Your task to perform on an android device: What's on my calendar today? Image 0: 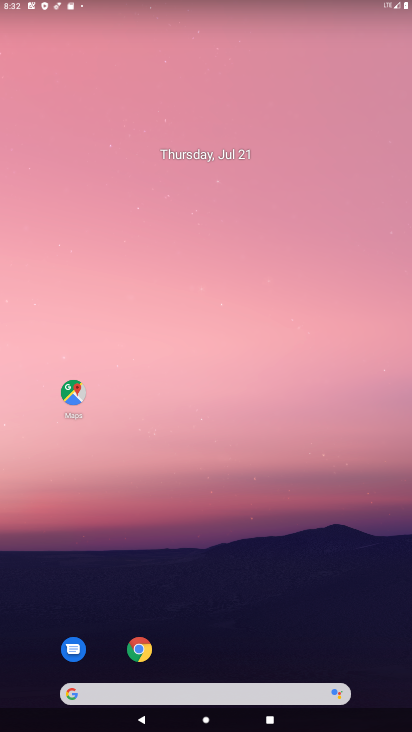
Step 0: drag from (183, 667) to (227, 86)
Your task to perform on an android device: What's on my calendar today? Image 1: 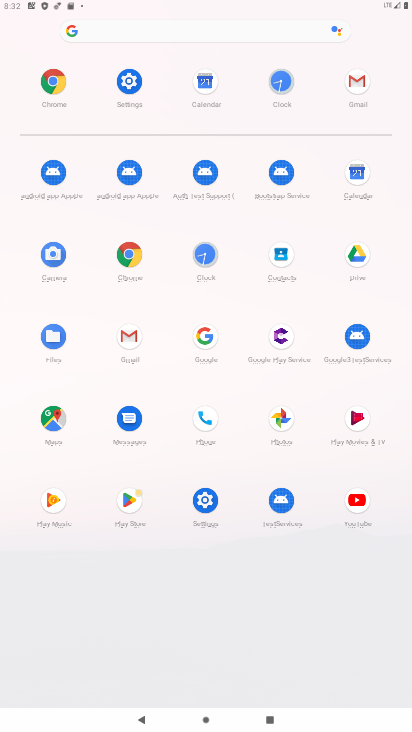
Step 1: click (203, 89)
Your task to perform on an android device: What's on my calendar today? Image 2: 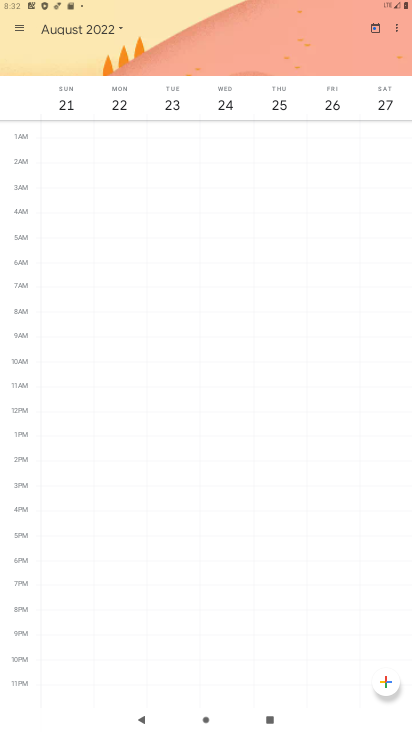
Step 2: click (67, 20)
Your task to perform on an android device: What's on my calendar today? Image 3: 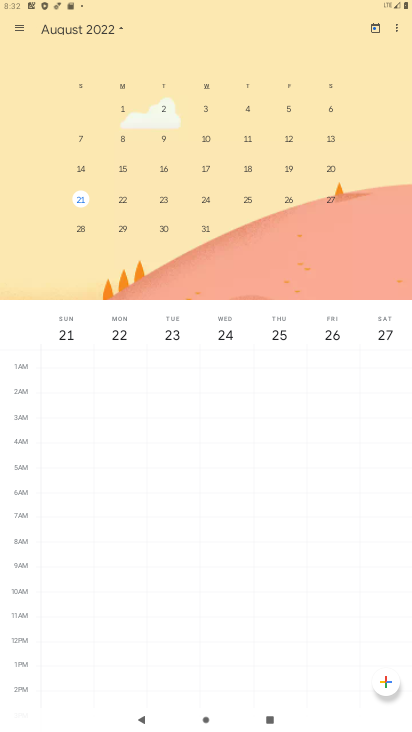
Step 3: drag from (101, 158) to (409, 205)
Your task to perform on an android device: What's on my calendar today? Image 4: 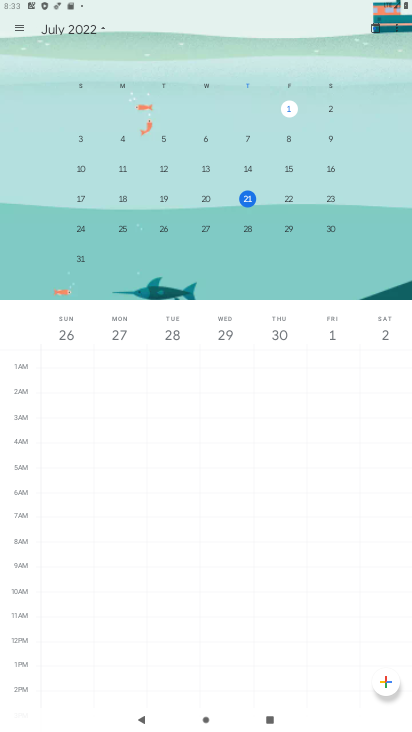
Step 4: click (246, 198)
Your task to perform on an android device: What's on my calendar today? Image 5: 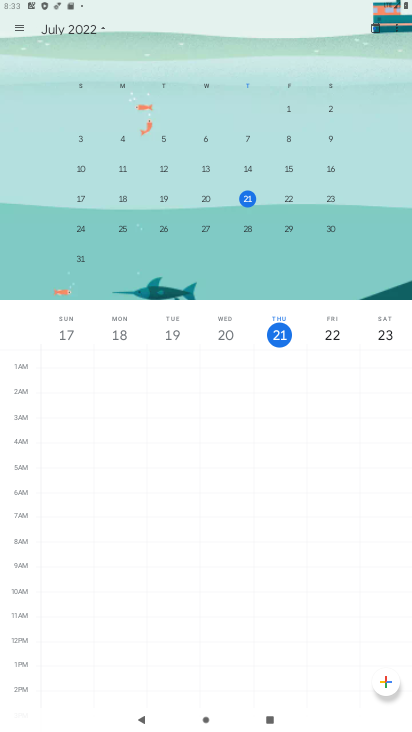
Step 5: click (16, 27)
Your task to perform on an android device: What's on my calendar today? Image 6: 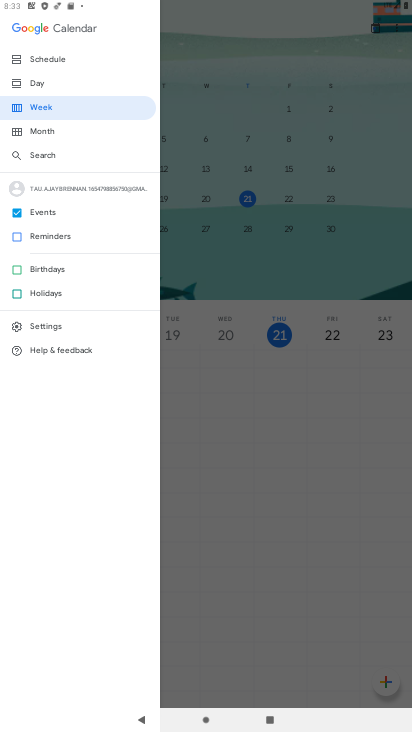
Step 6: click (46, 79)
Your task to perform on an android device: What's on my calendar today? Image 7: 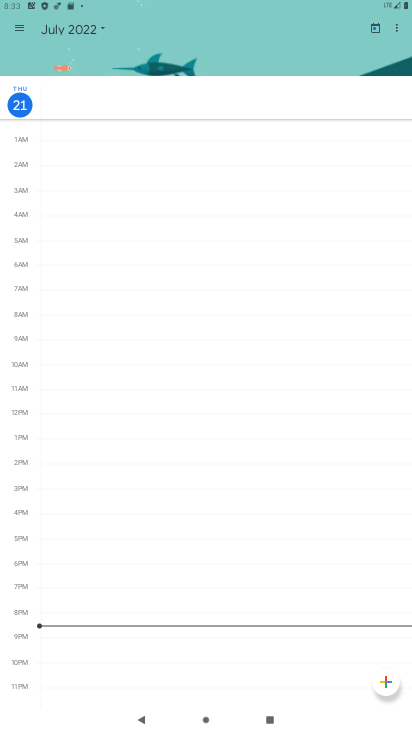
Step 7: task complete